Your task to perform on an android device: Show me the alarms in the clock app Image 0: 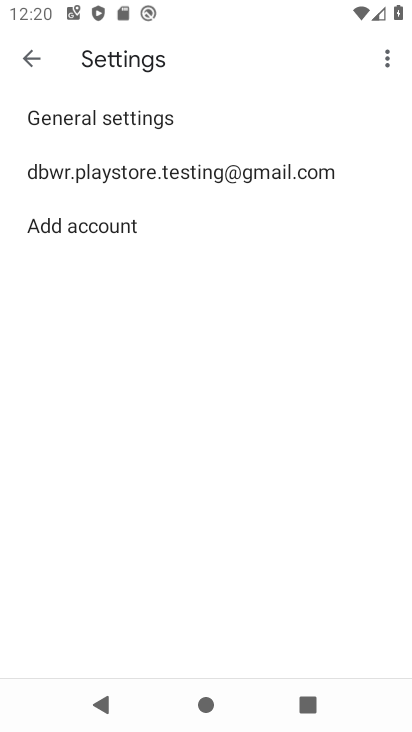
Step 0: press home button
Your task to perform on an android device: Show me the alarms in the clock app Image 1: 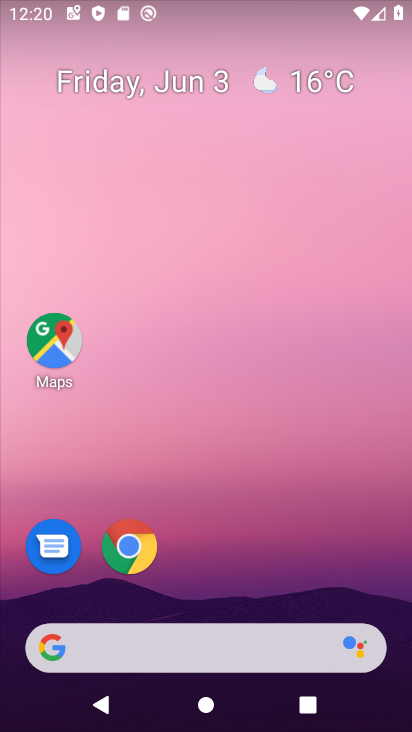
Step 1: drag from (231, 560) to (179, 162)
Your task to perform on an android device: Show me the alarms in the clock app Image 2: 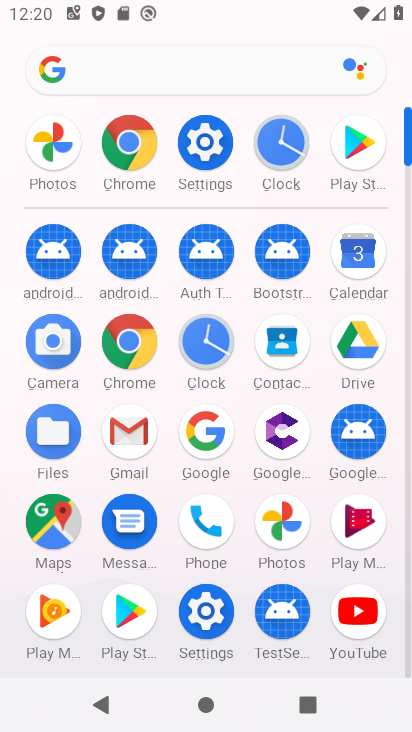
Step 2: click (280, 140)
Your task to perform on an android device: Show me the alarms in the clock app Image 3: 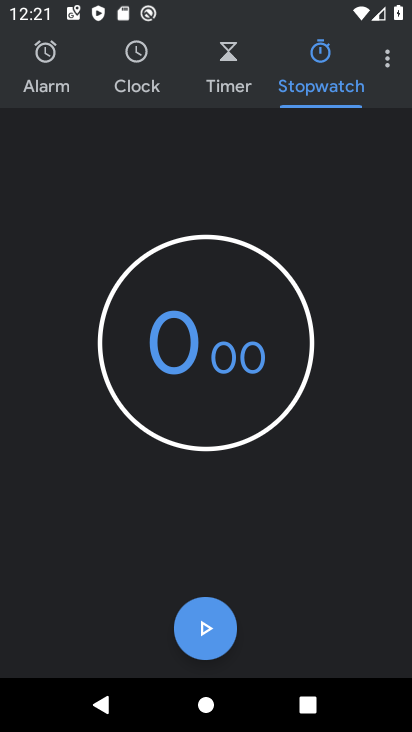
Step 3: click (38, 65)
Your task to perform on an android device: Show me the alarms in the clock app Image 4: 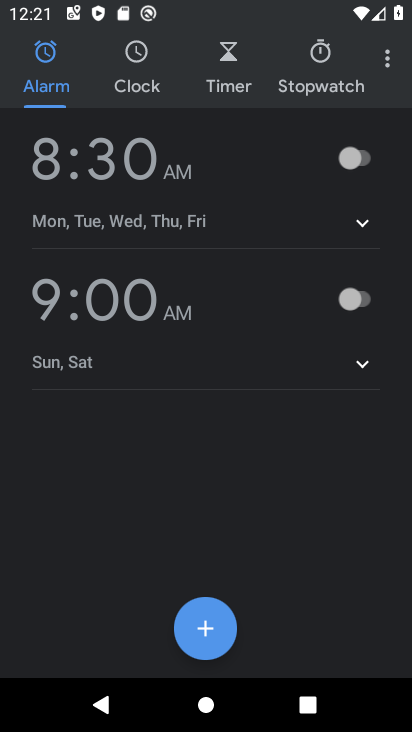
Step 4: task complete